Your task to perform on an android device: turn off translation in the chrome app Image 0: 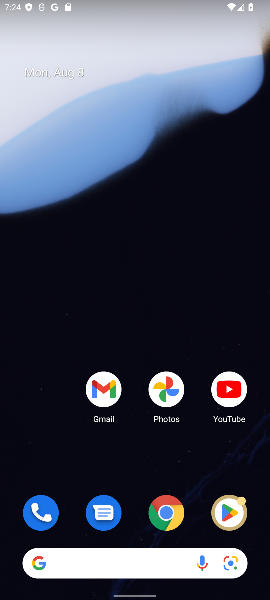
Step 0: click (171, 516)
Your task to perform on an android device: turn off translation in the chrome app Image 1: 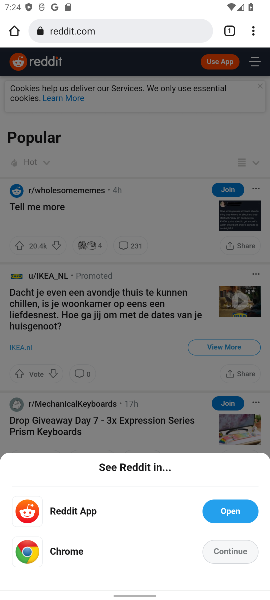
Step 1: click (259, 34)
Your task to perform on an android device: turn off translation in the chrome app Image 2: 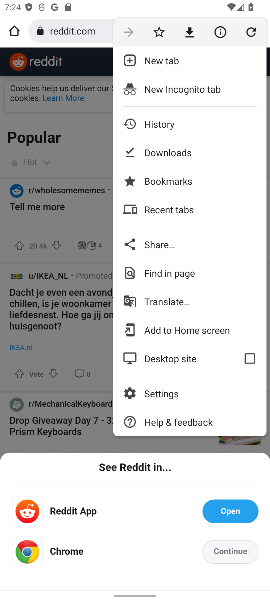
Step 2: click (185, 391)
Your task to perform on an android device: turn off translation in the chrome app Image 3: 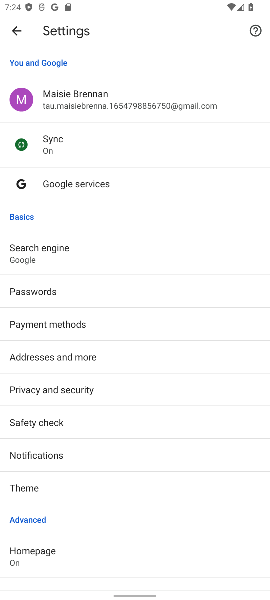
Step 3: drag from (138, 514) to (182, 15)
Your task to perform on an android device: turn off translation in the chrome app Image 4: 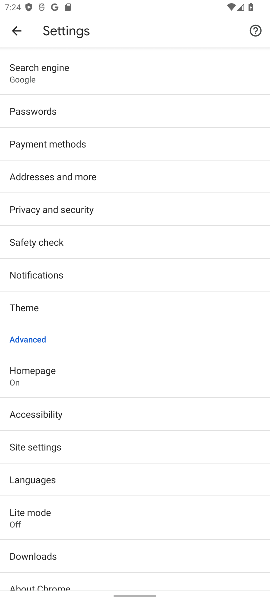
Step 4: click (56, 488)
Your task to perform on an android device: turn off translation in the chrome app Image 5: 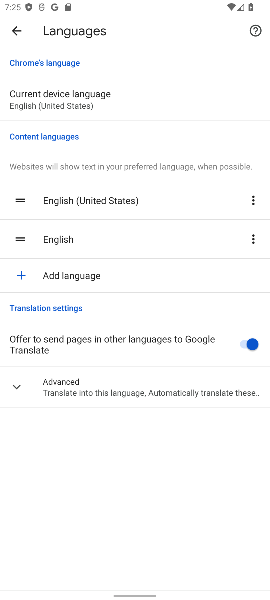
Step 5: click (248, 343)
Your task to perform on an android device: turn off translation in the chrome app Image 6: 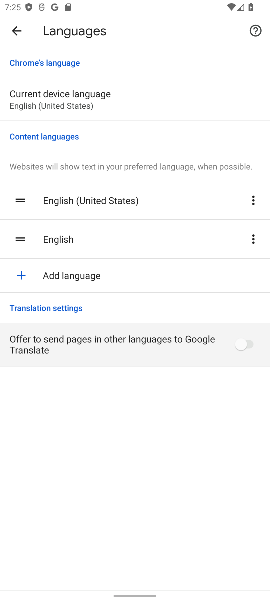
Step 6: task complete